Your task to perform on an android device: see sites visited before in the chrome app Image 0: 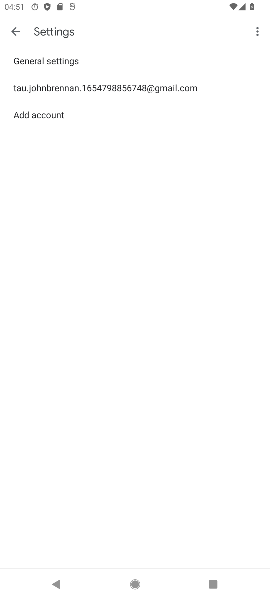
Step 0: press home button
Your task to perform on an android device: see sites visited before in the chrome app Image 1: 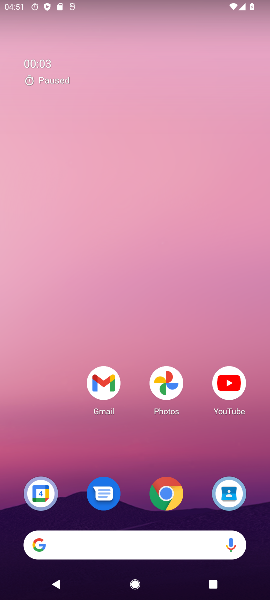
Step 1: click (158, 491)
Your task to perform on an android device: see sites visited before in the chrome app Image 2: 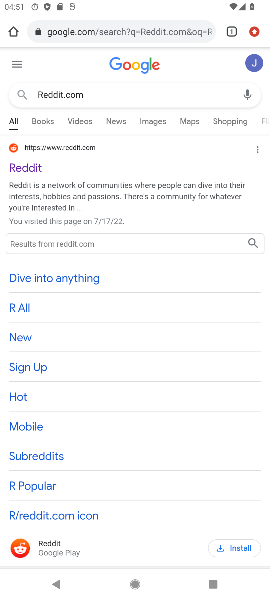
Step 2: click (253, 34)
Your task to perform on an android device: see sites visited before in the chrome app Image 3: 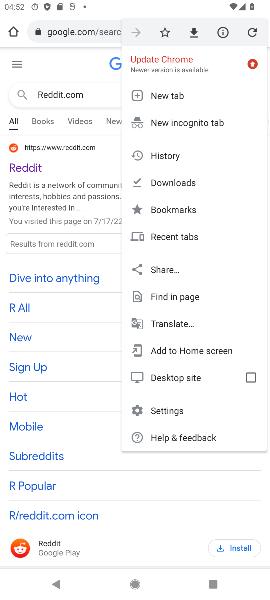
Step 3: click (168, 408)
Your task to perform on an android device: see sites visited before in the chrome app Image 4: 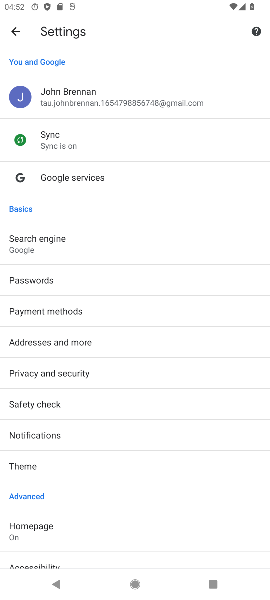
Step 4: drag from (57, 462) to (124, 241)
Your task to perform on an android device: see sites visited before in the chrome app Image 5: 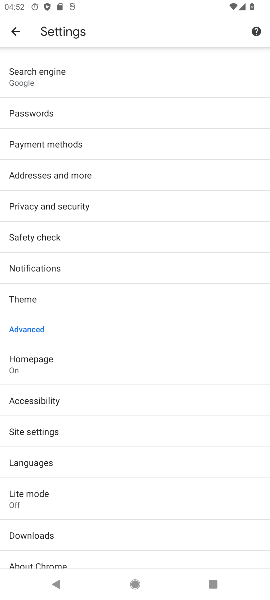
Step 5: click (37, 427)
Your task to perform on an android device: see sites visited before in the chrome app Image 6: 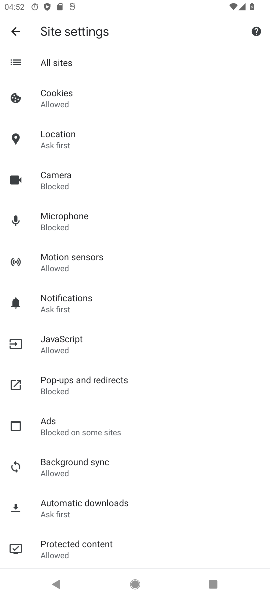
Step 6: task complete